Your task to perform on an android device: turn vacation reply on in the gmail app Image 0: 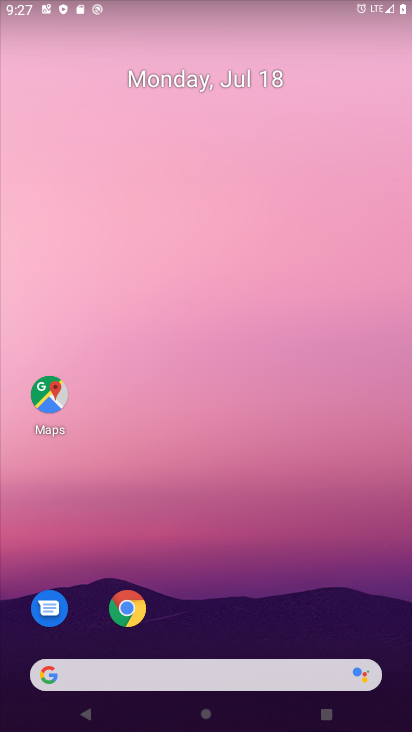
Step 0: drag from (230, 594) to (229, 180)
Your task to perform on an android device: turn vacation reply on in the gmail app Image 1: 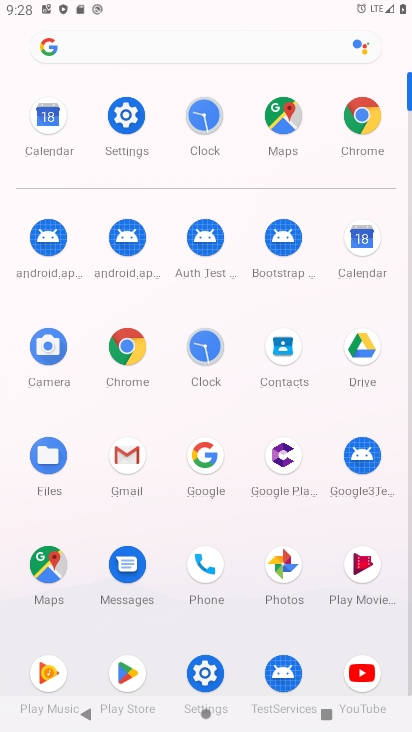
Step 1: click (117, 458)
Your task to perform on an android device: turn vacation reply on in the gmail app Image 2: 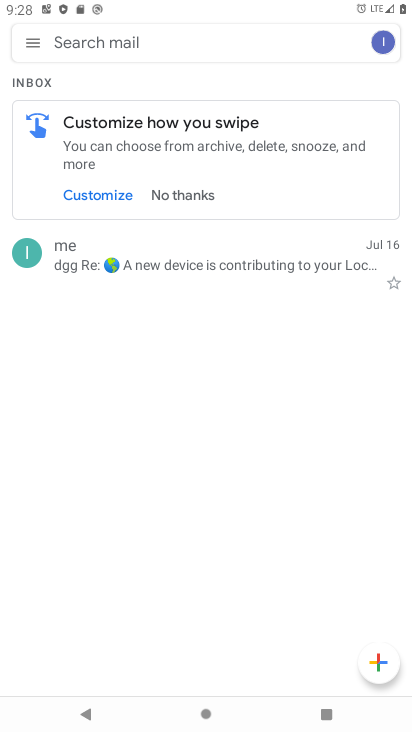
Step 2: click (36, 36)
Your task to perform on an android device: turn vacation reply on in the gmail app Image 3: 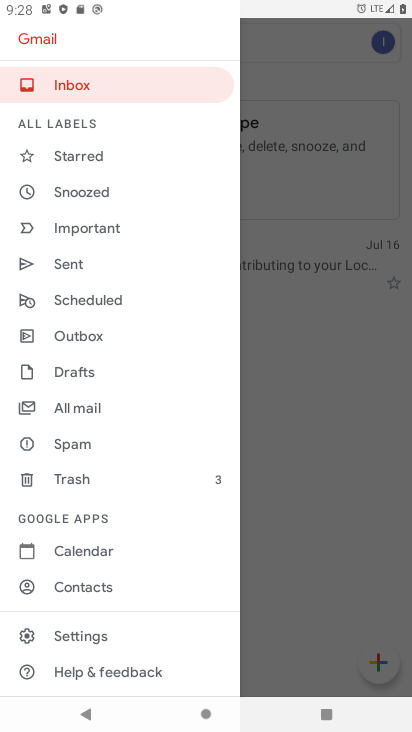
Step 3: click (72, 635)
Your task to perform on an android device: turn vacation reply on in the gmail app Image 4: 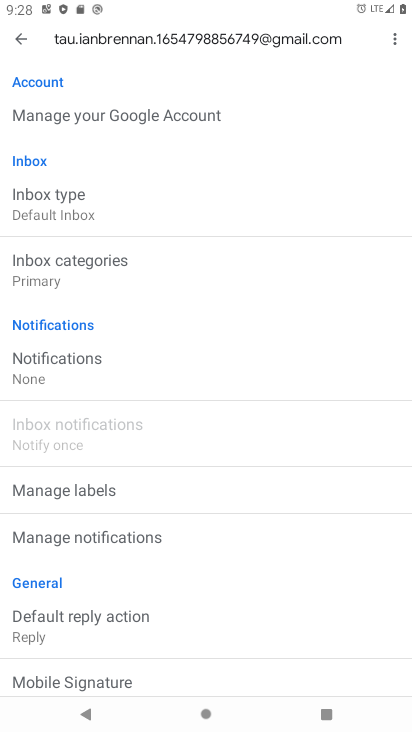
Step 4: drag from (84, 625) to (84, 316)
Your task to perform on an android device: turn vacation reply on in the gmail app Image 5: 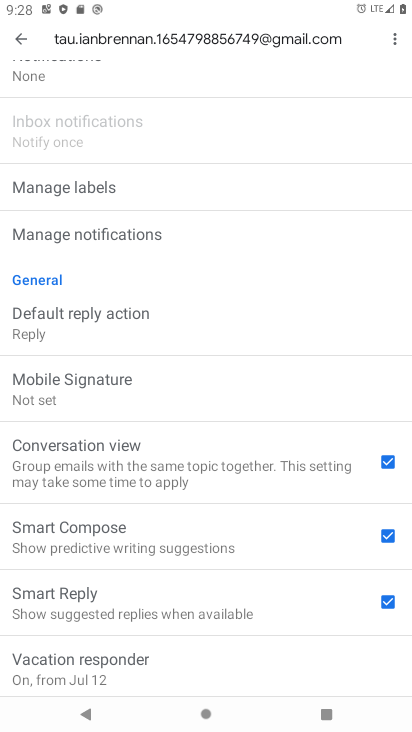
Step 5: click (124, 668)
Your task to perform on an android device: turn vacation reply on in the gmail app Image 6: 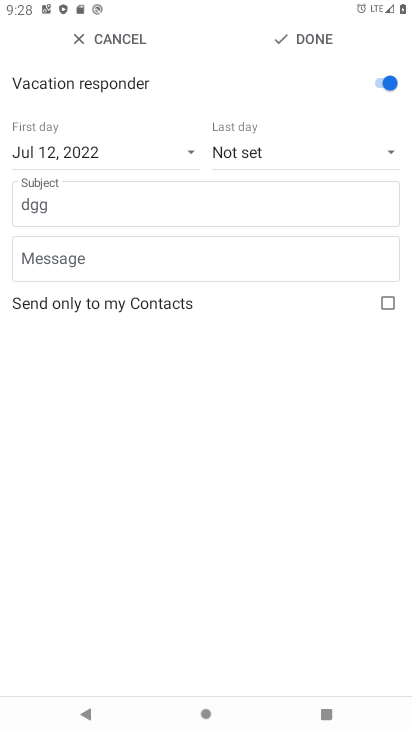
Step 6: task complete